Your task to perform on an android device: manage bookmarks in the chrome app Image 0: 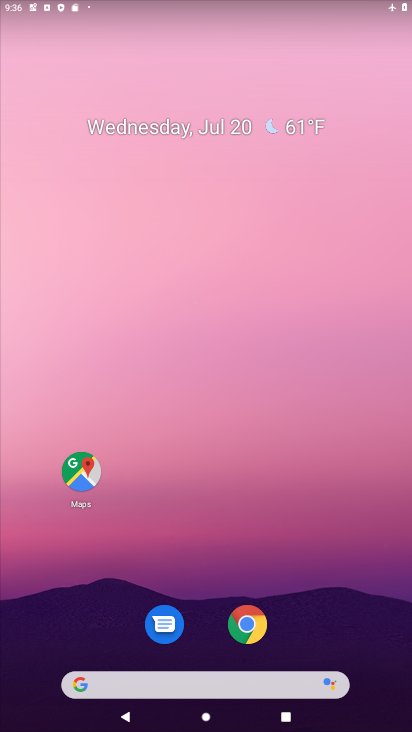
Step 0: click (239, 632)
Your task to perform on an android device: manage bookmarks in the chrome app Image 1: 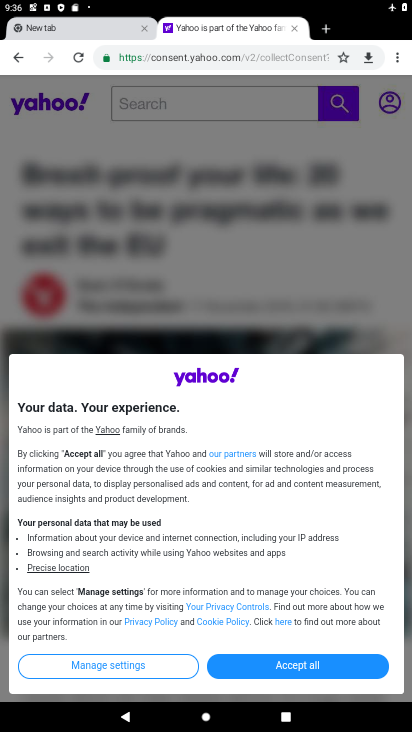
Step 1: click (396, 53)
Your task to perform on an android device: manage bookmarks in the chrome app Image 2: 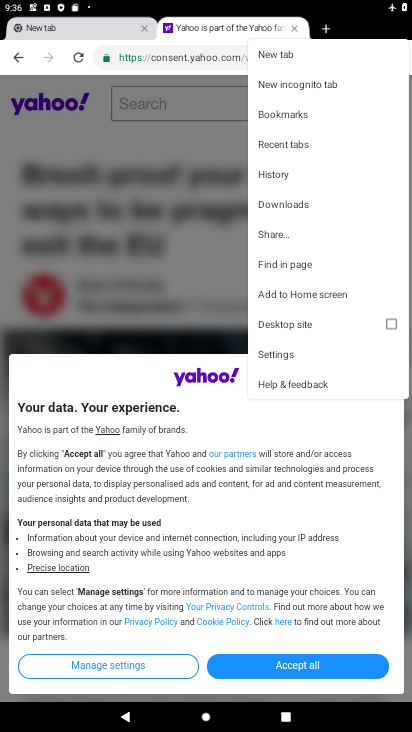
Step 2: click (323, 115)
Your task to perform on an android device: manage bookmarks in the chrome app Image 3: 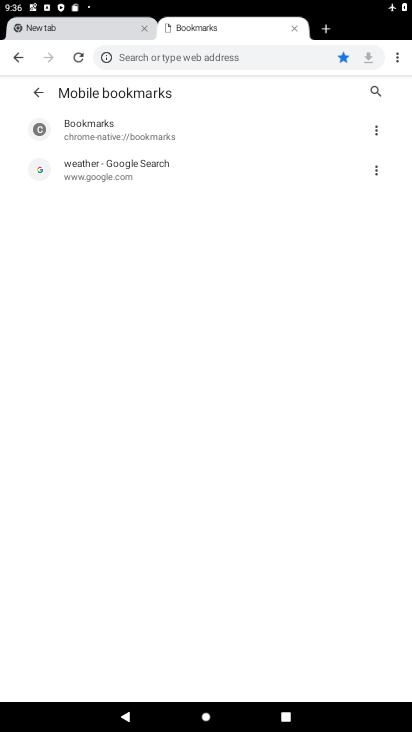
Step 3: click (381, 166)
Your task to perform on an android device: manage bookmarks in the chrome app Image 4: 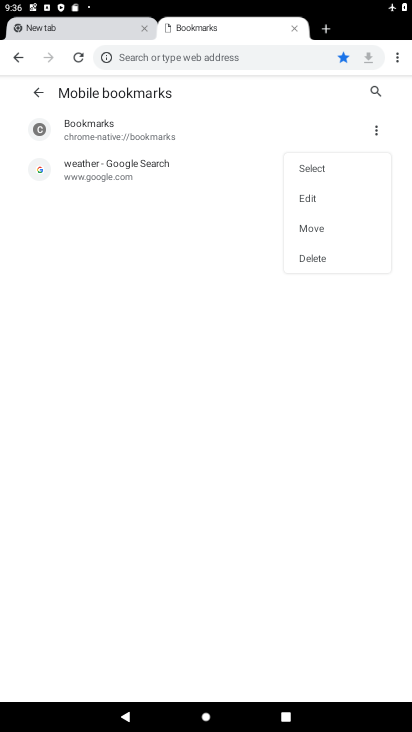
Step 4: click (330, 256)
Your task to perform on an android device: manage bookmarks in the chrome app Image 5: 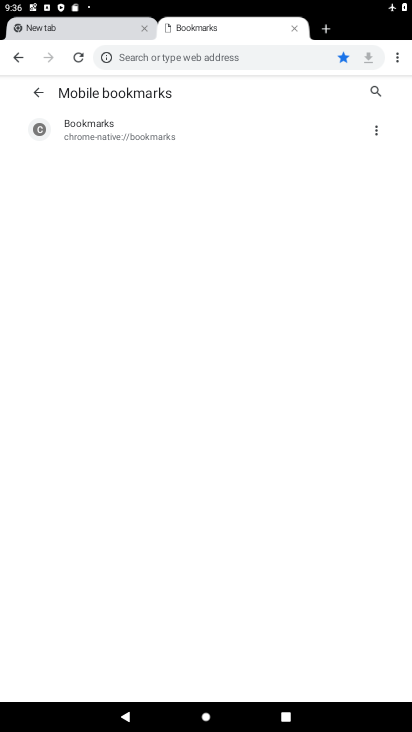
Step 5: task complete